Your task to perform on an android device: Go to internet settings Image 0: 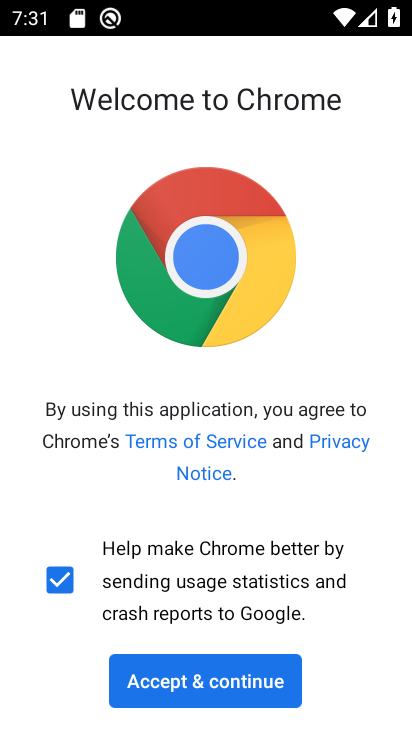
Step 0: press home button
Your task to perform on an android device: Go to internet settings Image 1: 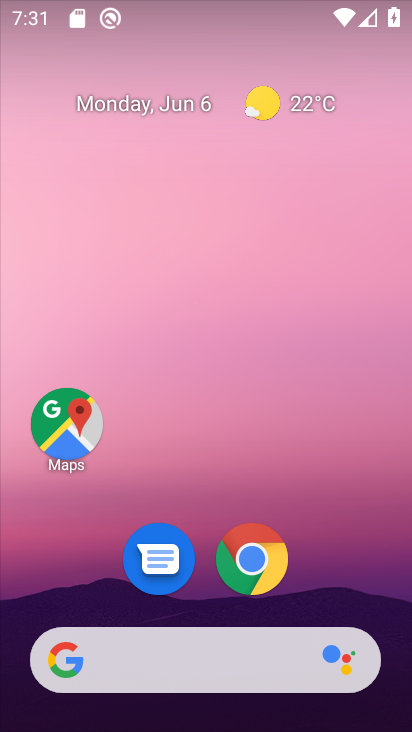
Step 1: drag from (180, 415) to (190, 260)
Your task to perform on an android device: Go to internet settings Image 2: 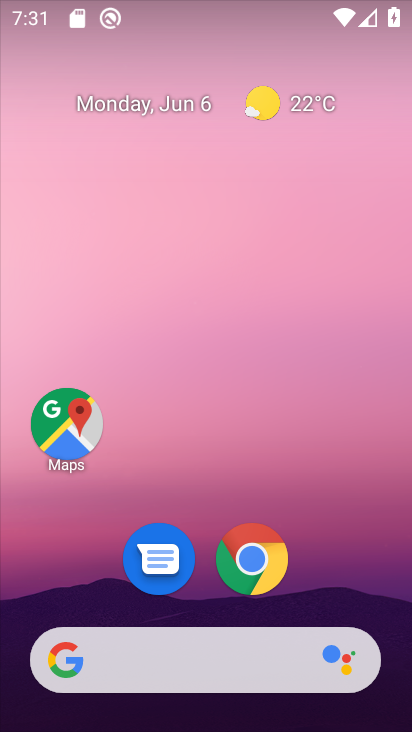
Step 2: drag from (207, 499) to (233, 203)
Your task to perform on an android device: Go to internet settings Image 3: 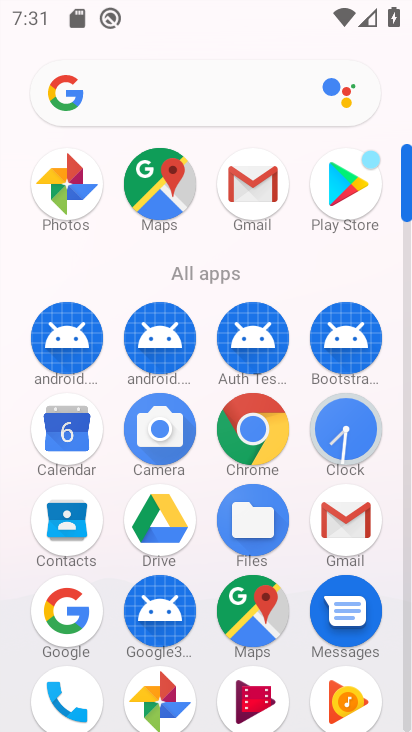
Step 3: drag from (210, 685) to (236, 301)
Your task to perform on an android device: Go to internet settings Image 4: 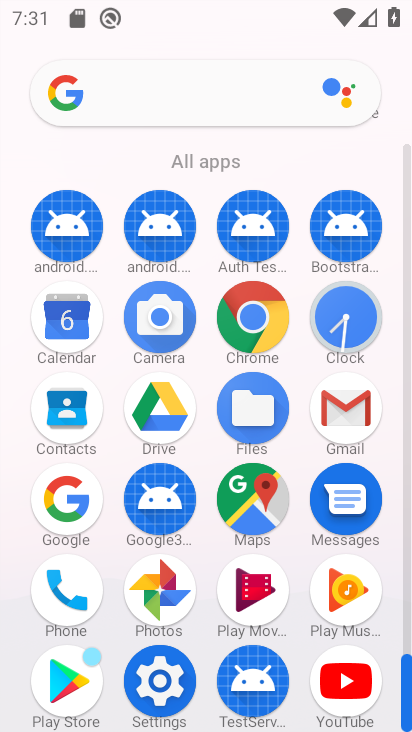
Step 4: click (162, 678)
Your task to perform on an android device: Go to internet settings Image 5: 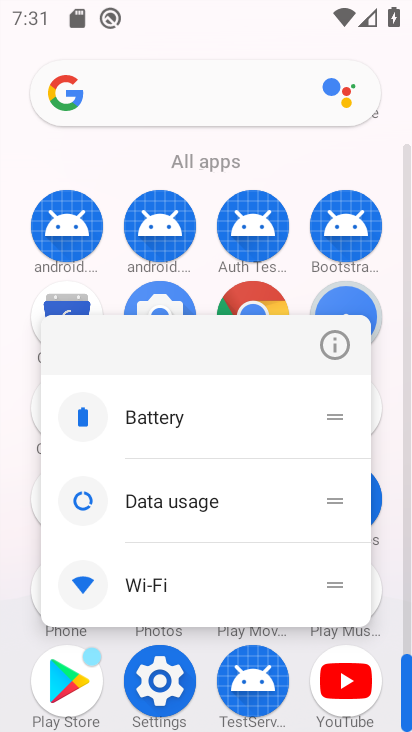
Step 5: click (347, 347)
Your task to perform on an android device: Go to internet settings Image 6: 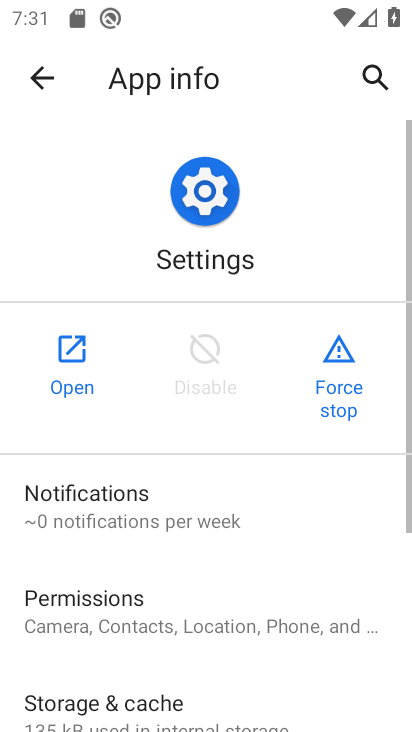
Step 6: click (78, 361)
Your task to perform on an android device: Go to internet settings Image 7: 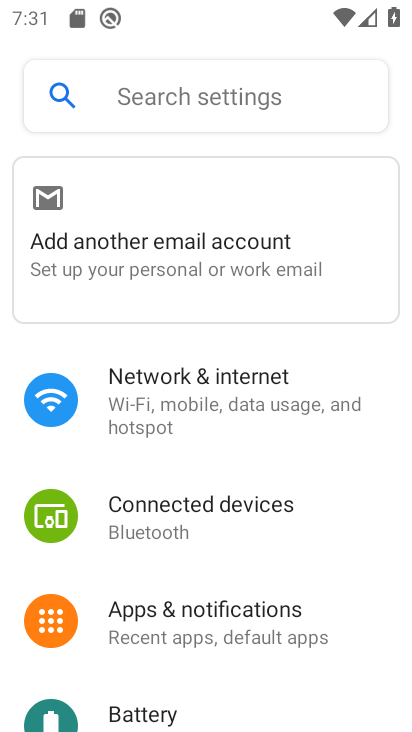
Step 7: click (149, 406)
Your task to perform on an android device: Go to internet settings Image 8: 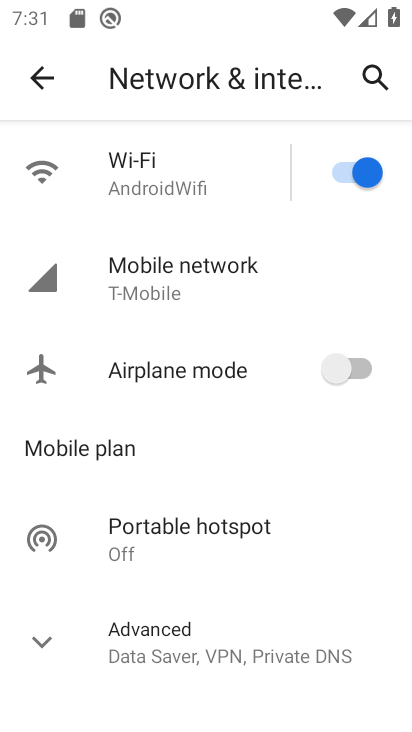
Step 8: task complete